Your task to perform on an android device: Open Reddit.com Image 0: 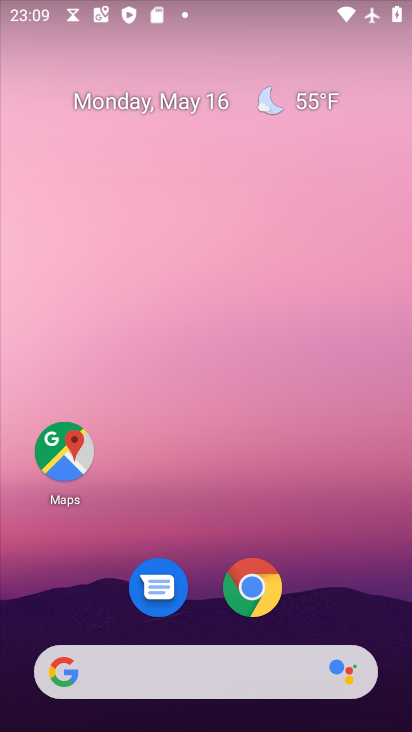
Step 0: drag from (327, 576) to (250, 8)
Your task to perform on an android device: Open Reddit.com Image 1: 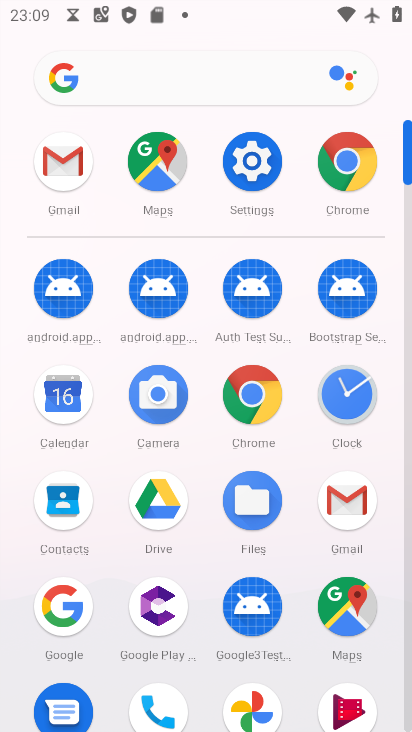
Step 1: click (349, 156)
Your task to perform on an android device: Open Reddit.com Image 2: 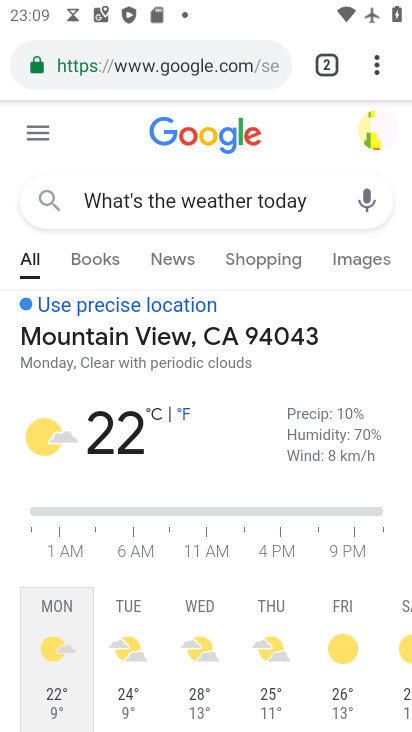
Step 2: click (199, 75)
Your task to perform on an android device: Open Reddit.com Image 3: 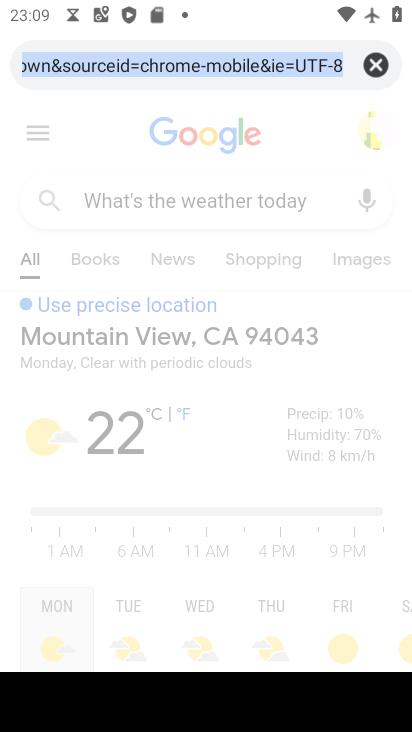
Step 3: click (375, 62)
Your task to perform on an android device: Open Reddit.com Image 4: 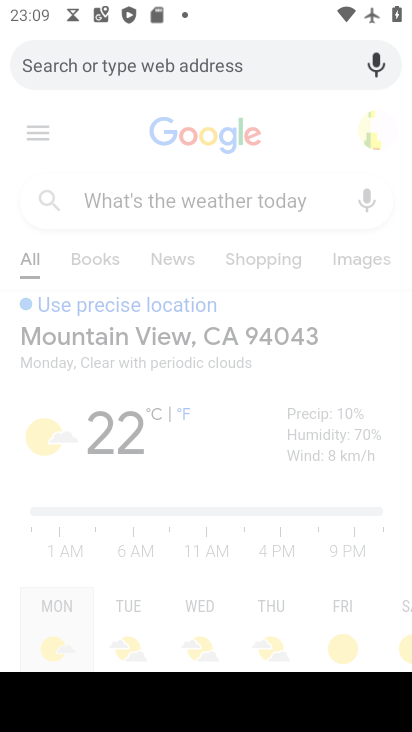
Step 4: type " Reddit.com"
Your task to perform on an android device: Open Reddit.com Image 5: 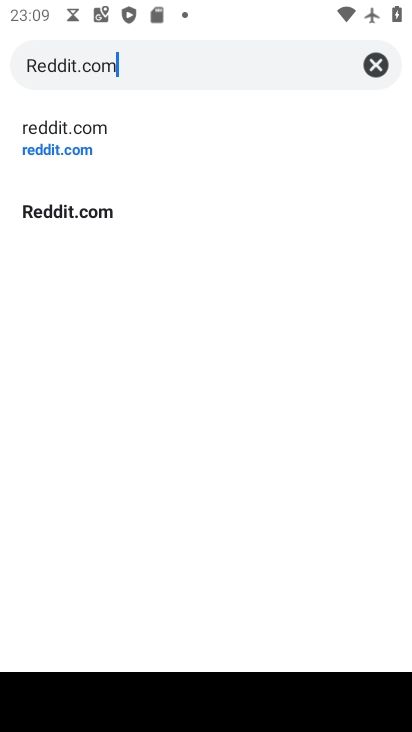
Step 5: type ""
Your task to perform on an android device: Open Reddit.com Image 6: 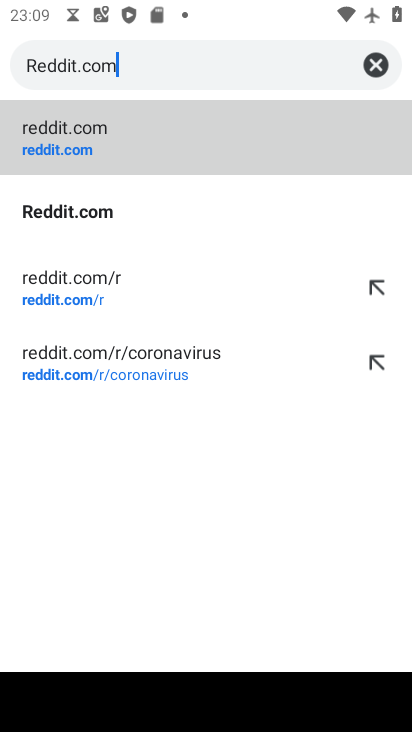
Step 6: click (125, 129)
Your task to perform on an android device: Open Reddit.com Image 7: 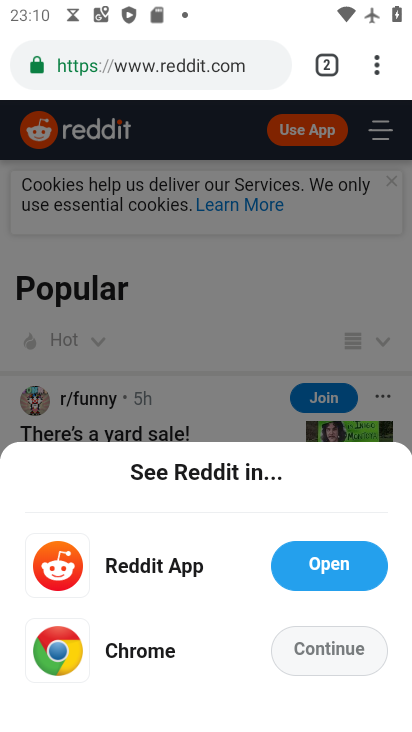
Step 7: task complete